Your task to perform on an android device: What's the weather? Image 0: 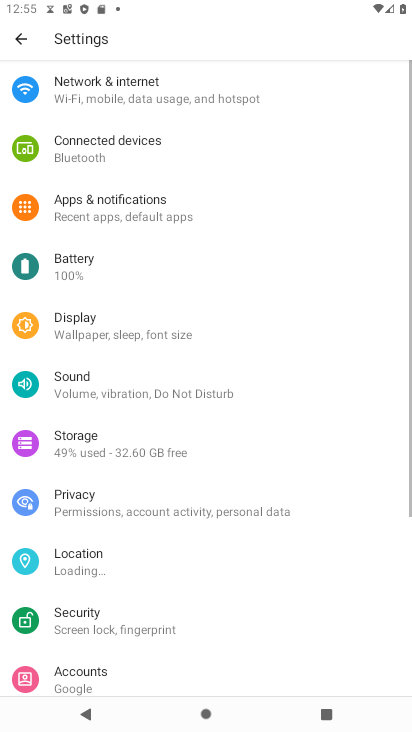
Step 0: press back button
Your task to perform on an android device: What's the weather? Image 1: 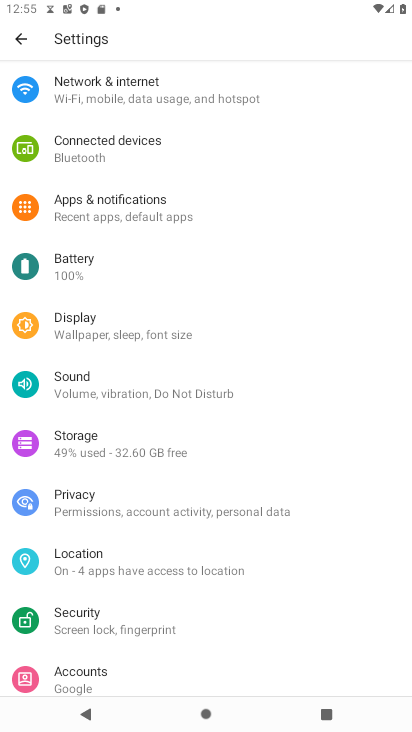
Step 1: press back button
Your task to perform on an android device: What's the weather? Image 2: 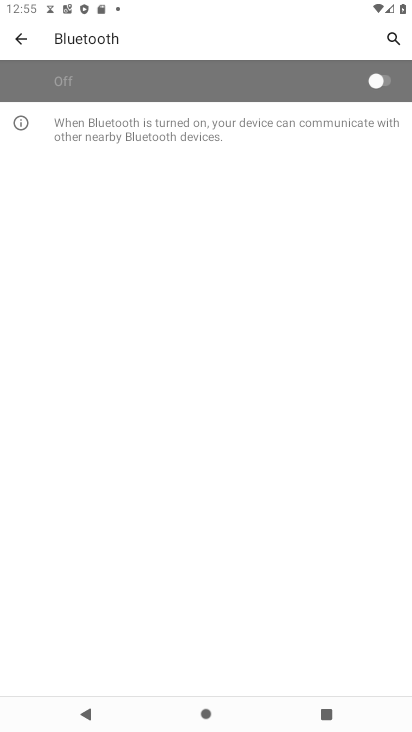
Step 2: press back button
Your task to perform on an android device: What's the weather? Image 3: 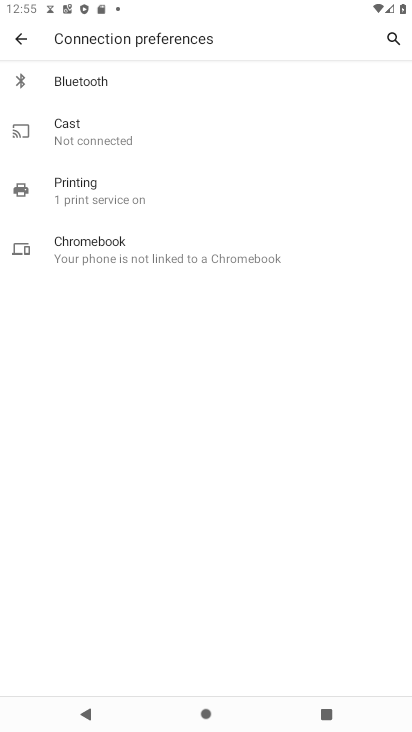
Step 3: press back button
Your task to perform on an android device: What's the weather? Image 4: 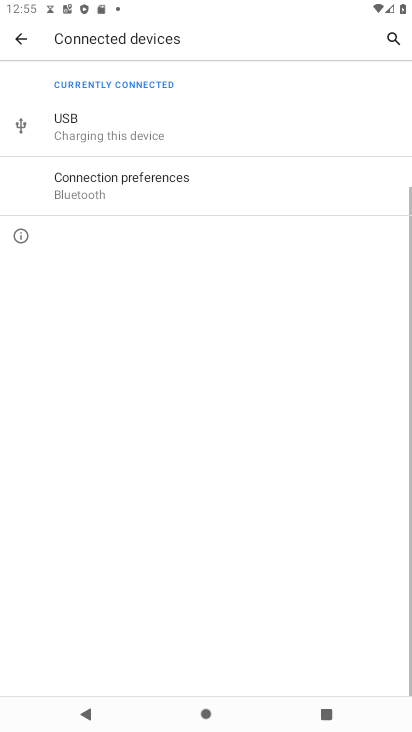
Step 4: press back button
Your task to perform on an android device: What's the weather? Image 5: 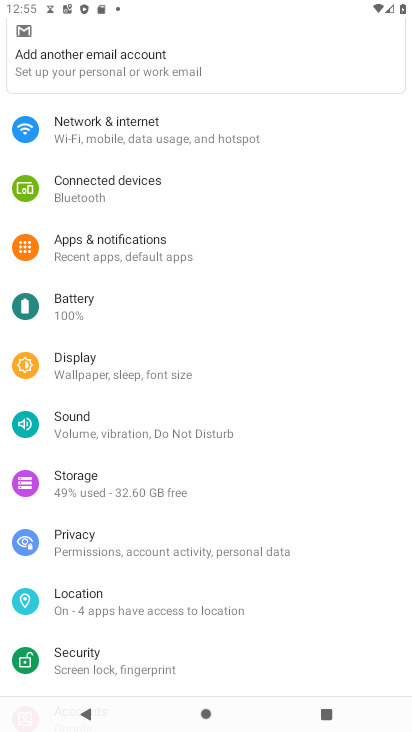
Step 5: press back button
Your task to perform on an android device: What's the weather? Image 6: 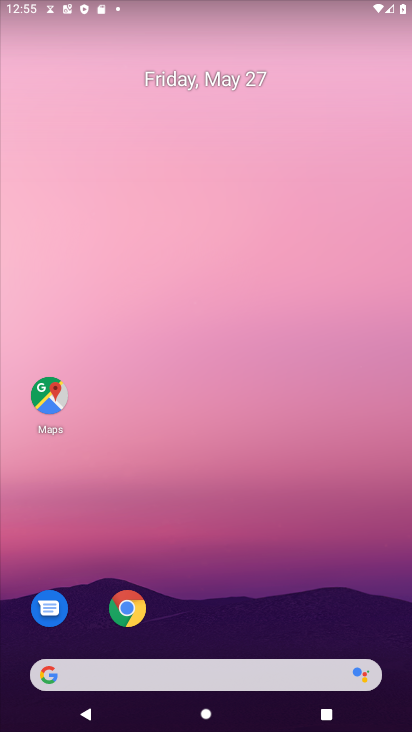
Step 6: click (127, 671)
Your task to perform on an android device: What's the weather? Image 7: 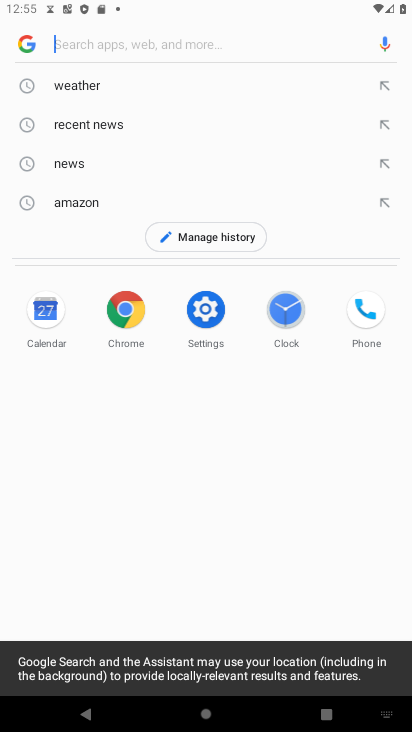
Step 7: click (86, 84)
Your task to perform on an android device: What's the weather? Image 8: 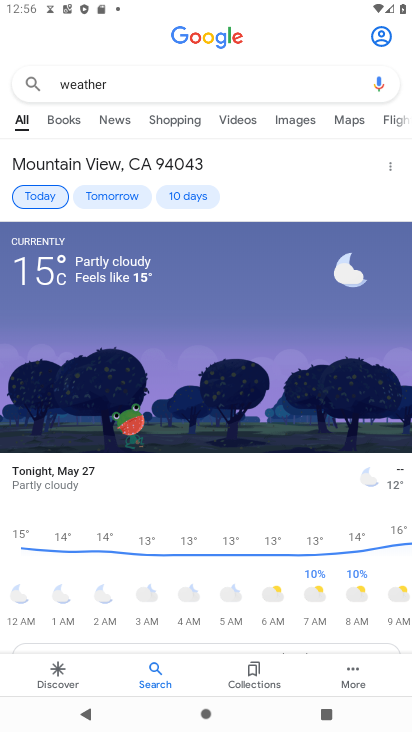
Step 8: task complete